Your task to perform on an android device: Search for seafood restaurants on Google Maps Image 0: 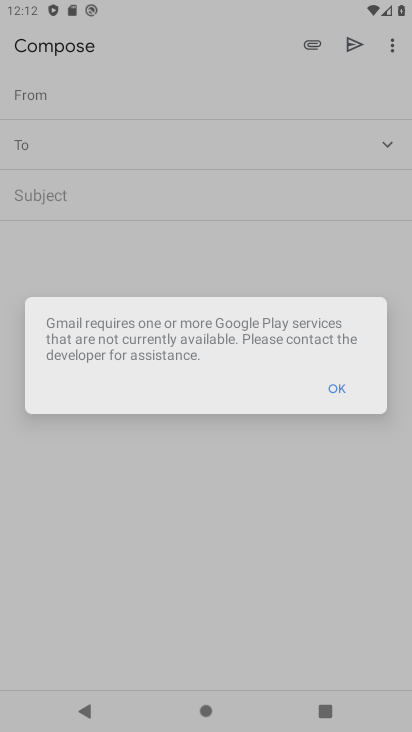
Step 0: drag from (299, 612) to (263, 391)
Your task to perform on an android device: Search for seafood restaurants on Google Maps Image 1: 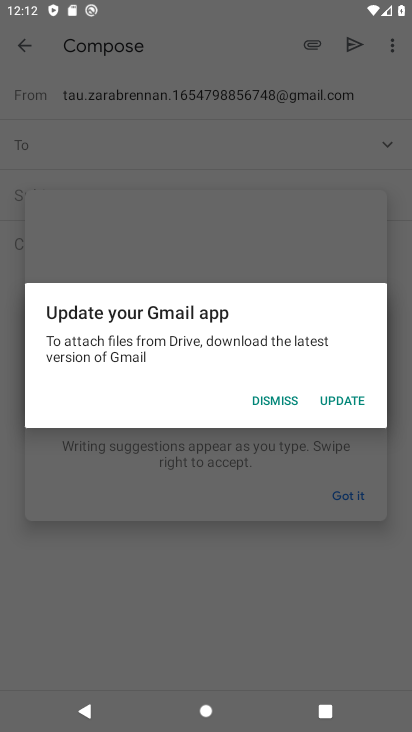
Step 1: press home button
Your task to perform on an android device: Search for seafood restaurants on Google Maps Image 2: 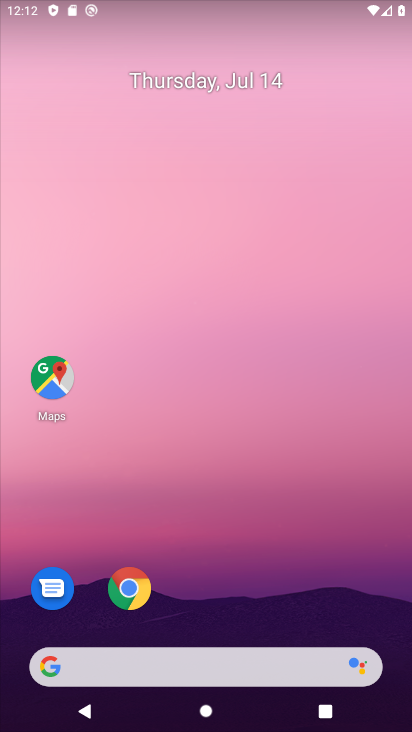
Step 2: click (49, 382)
Your task to perform on an android device: Search for seafood restaurants on Google Maps Image 3: 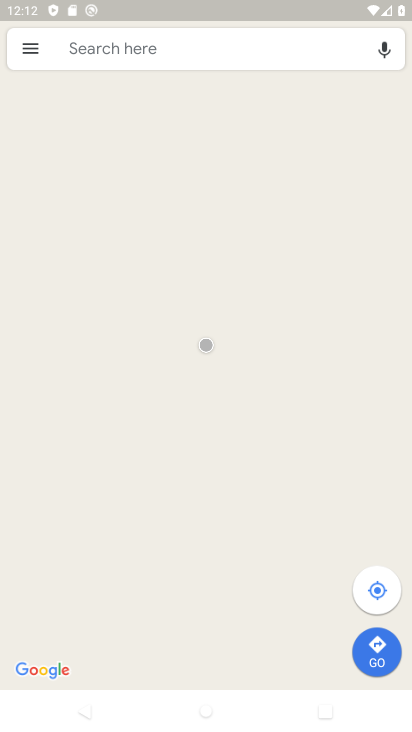
Step 3: click (96, 51)
Your task to perform on an android device: Search for seafood restaurants on Google Maps Image 4: 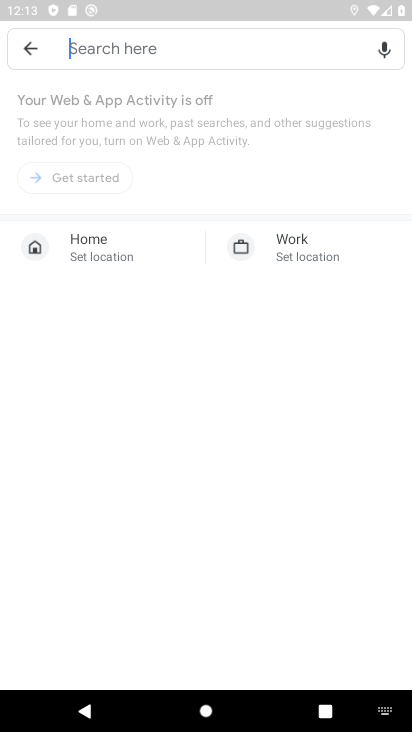
Step 4: type "seafood"
Your task to perform on an android device: Search for seafood restaurants on Google Maps Image 5: 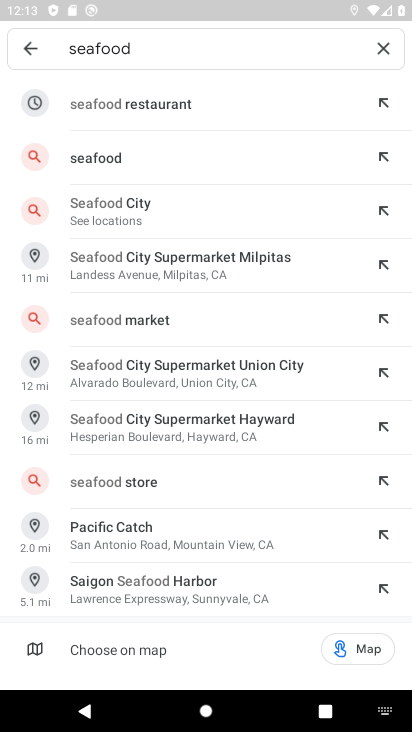
Step 5: click (101, 95)
Your task to perform on an android device: Search for seafood restaurants on Google Maps Image 6: 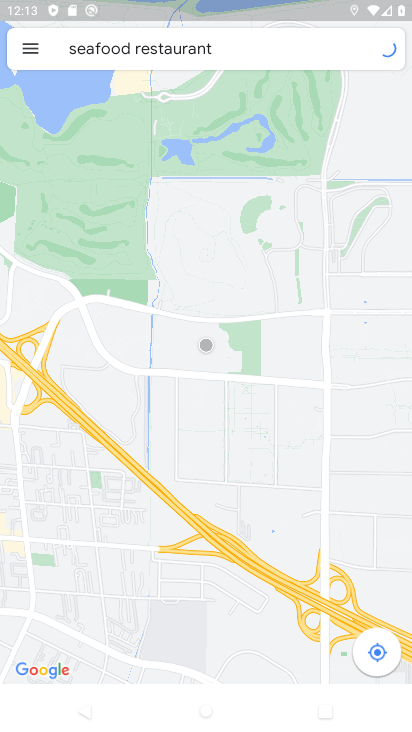
Step 6: task complete